Your task to perform on an android device: Open Youtube and go to the subscriptions tab Image 0: 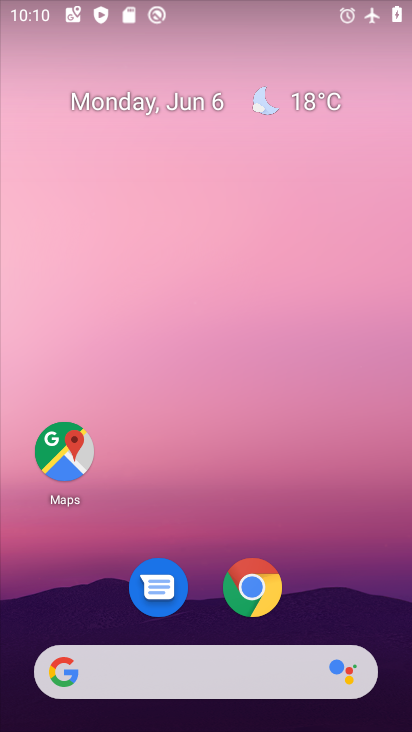
Step 0: drag from (346, 524) to (364, 33)
Your task to perform on an android device: Open Youtube and go to the subscriptions tab Image 1: 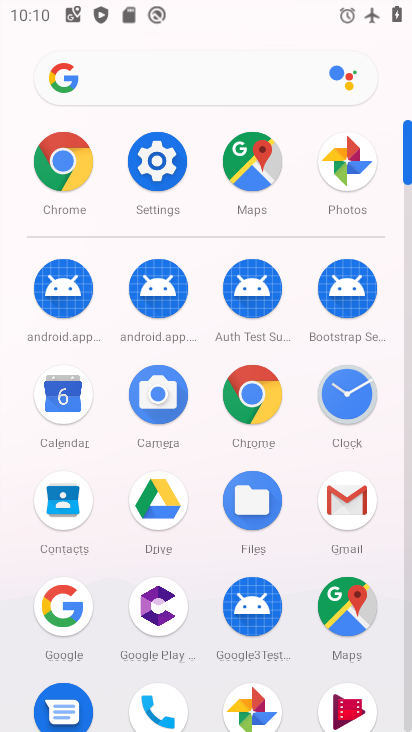
Step 1: drag from (295, 554) to (330, 38)
Your task to perform on an android device: Open Youtube and go to the subscriptions tab Image 2: 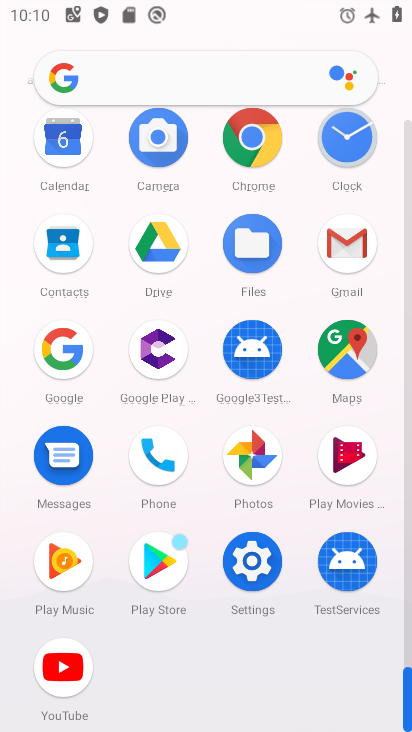
Step 2: click (68, 651)
Your task to perform on an android device: Open Youtube and go to the subscriptions tab Image 3: 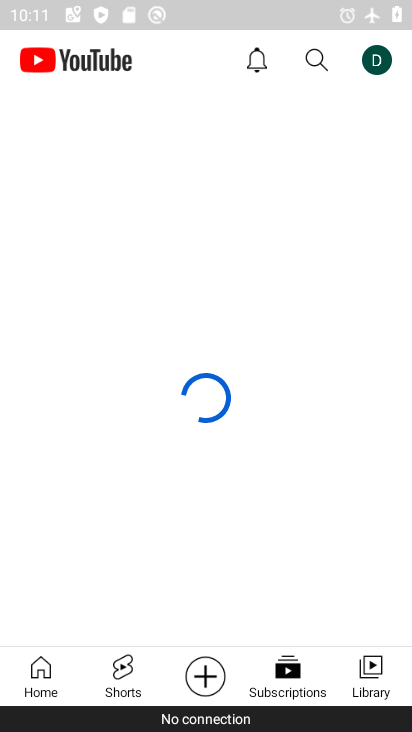
Step 3: task complete